Your task to perform on an android device: make emails show in primary in the gmail app Image 0: 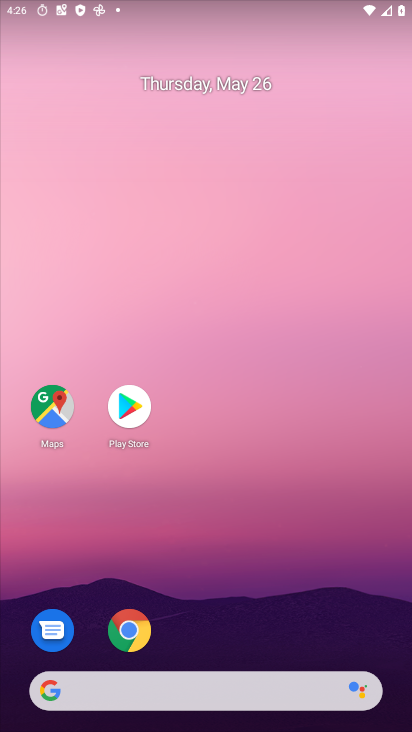
Step 0: drag from (272, 633) to (303, 126)
Your task to perform on an android device: make emails show in primary in the gmail app Image 1: 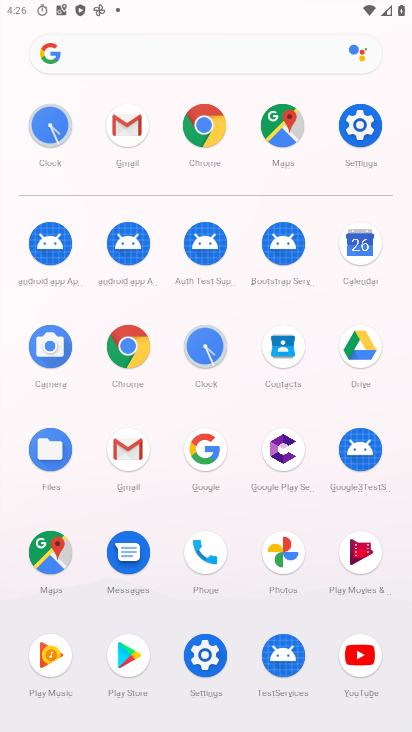
Step 1: click (116, 446)
Your task to perform on an android device: make emails show in primary in the gmail app Image 2: 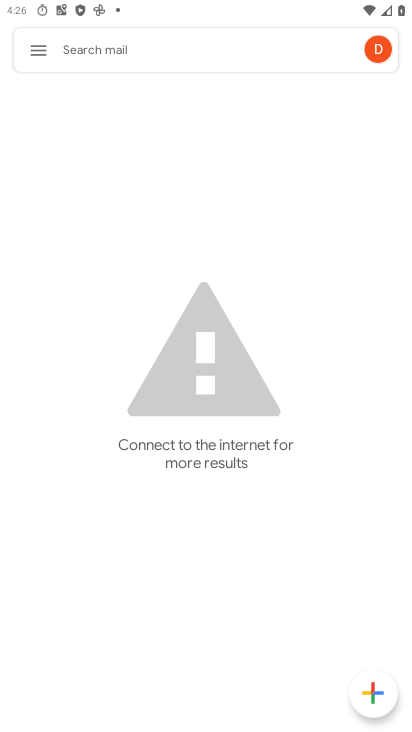
Step 2: click (37, 54)
Your task to perform on an android device: make emails show in primary in the gmail app Image 3: 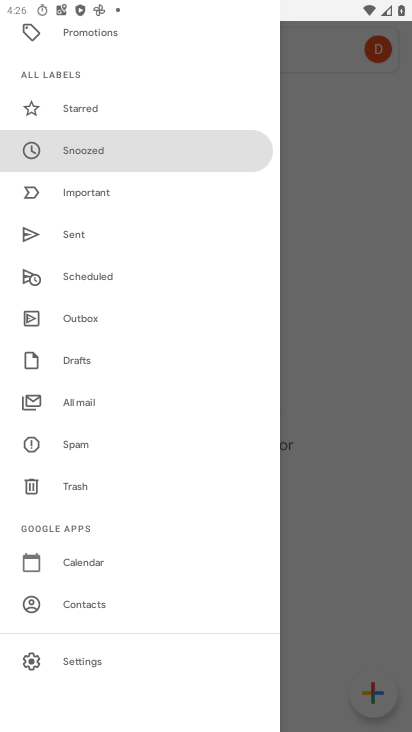
Step 3: click (75, 656)
Your task to perform on an android device: make emails show in primary in the gmail app Image 4: 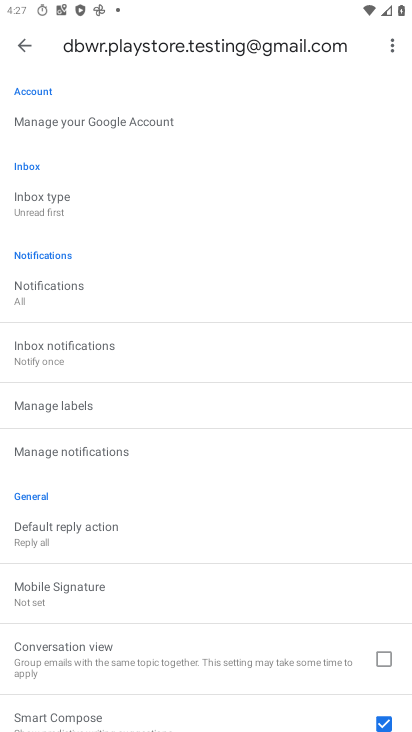
Step 4: click (44, 212)
Your task to perform on an android device: make emails show in primary in the gmail app Image 5: 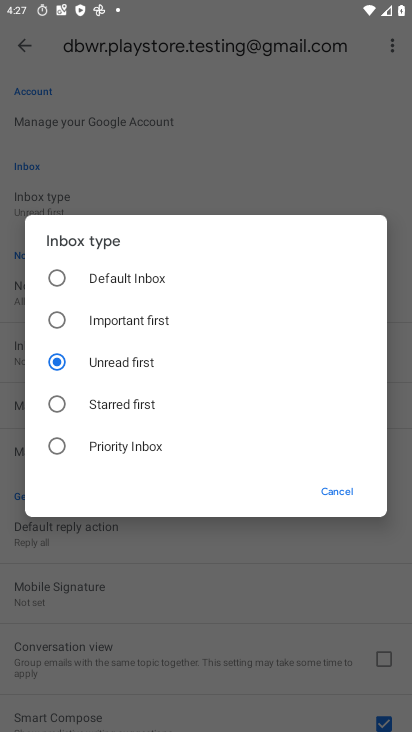
Step 5: click (63, 274)
Your task to perform on an android device: make emails show in primary in the gmail app Image 6: 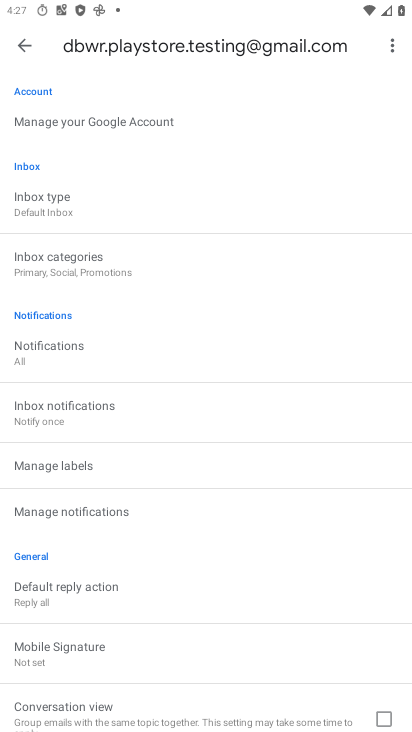
Step 6: click (103, 266)
Your task to perform on an android device: make emails show in primary in the gmail app Image 7: 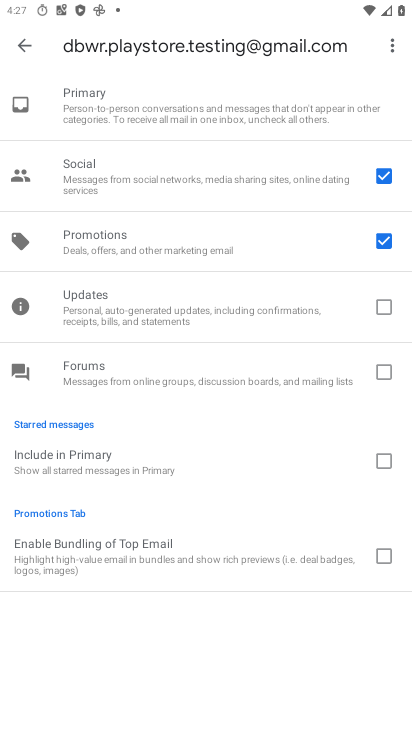
Step 7: click (408, 229)
Your task to perform on an android device: make emails show in primary in the gmail app Image 8: 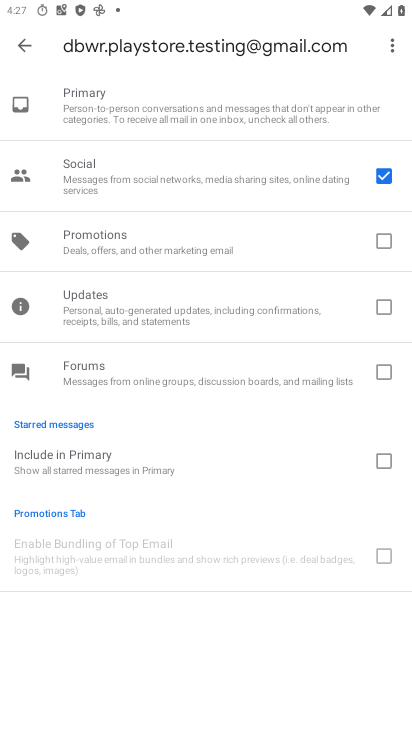
Step 8: click (383, 175)
Your task to perform on an android device: make emails show in primary in the gmail app Image 9: 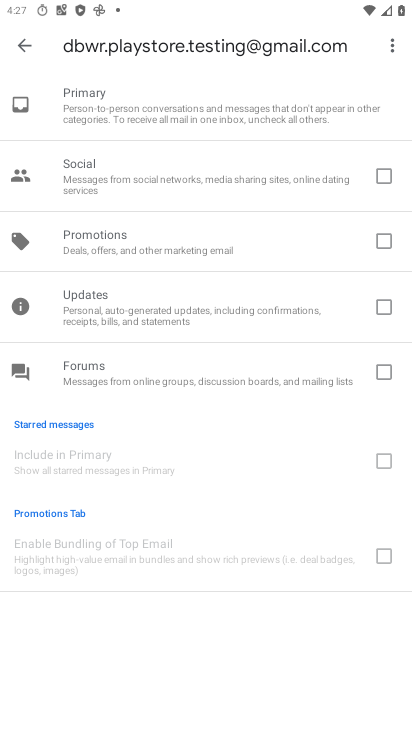
Step 9: task complete